Your task to perform on an android device: Is it going to rain today? Image 0: 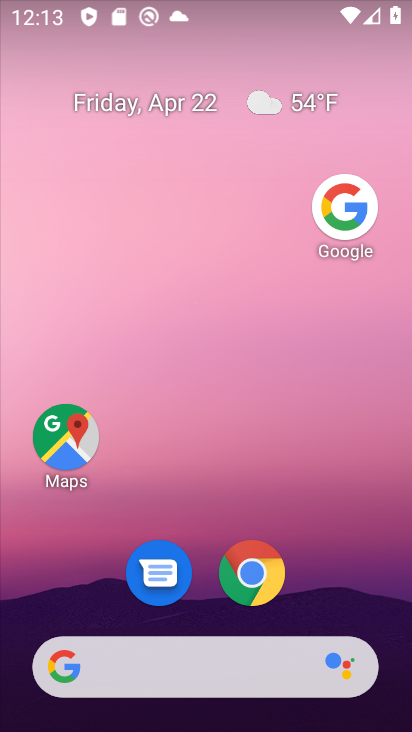
Step 0: drag from (203, 662) to (307, 169)
Your task to perform on an android device: Is it going to rain today? Image 1: 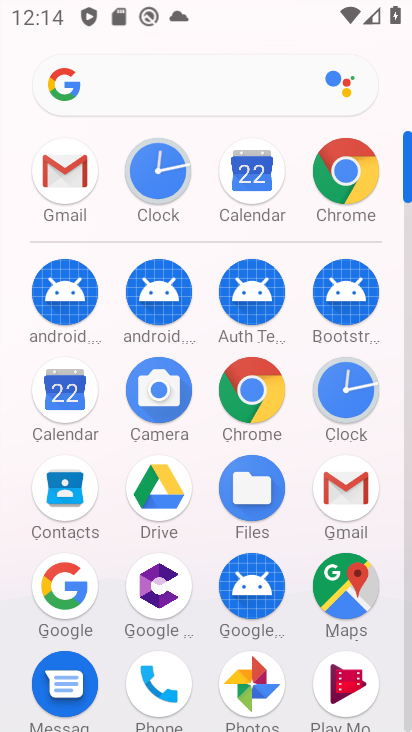
Step 1: press back button
Your task to perform on an android device: Is it going to rain today? Image 2: 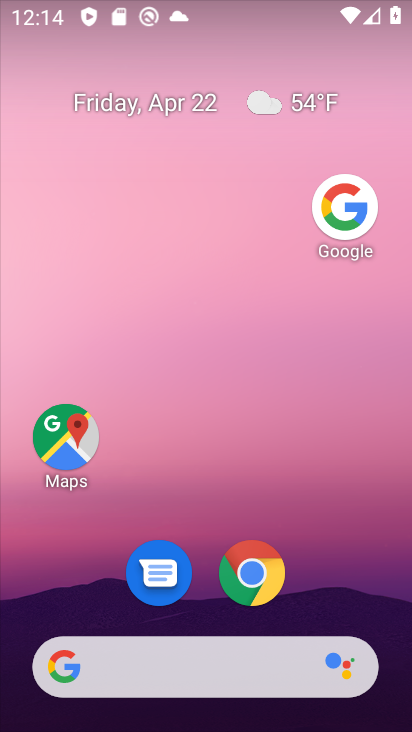
Step 2: click (313, 100)
Your task to perform on an android device: Is it going to rain today? Image 3: 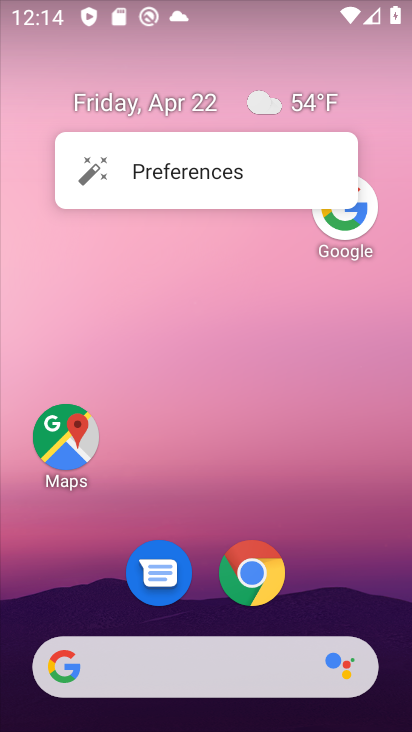
Step 3: click (313, 100)
Your task to perform on an android device: Is it going to rain today? Image 4: 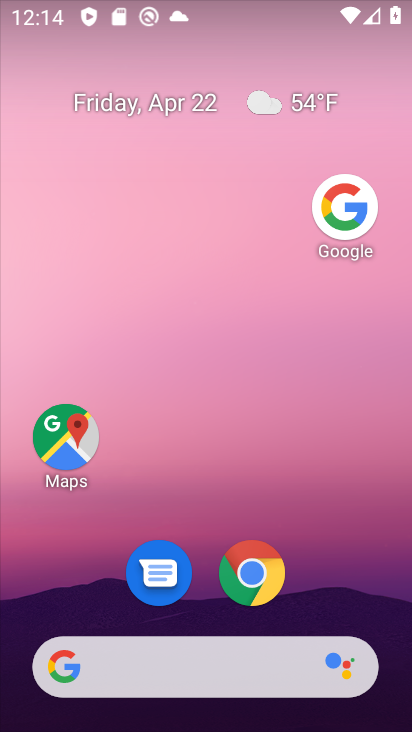
Step 4: click (307, 104)
Your task to perform on an android device: Is it going to rain today? Image 5: 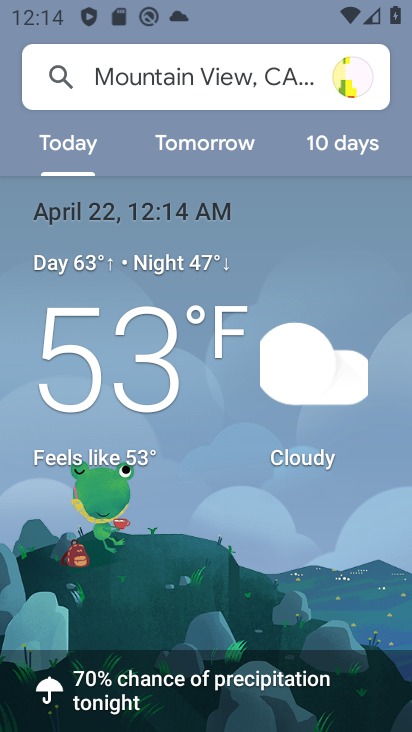
Step 5: task complete